Your task to perform on an android device: turn off wifi Image 0: 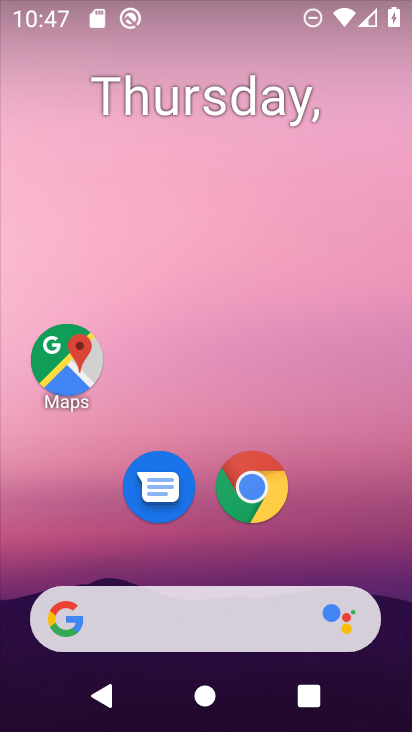
Step 0: drag from (334, 519) to (172, 198)
Your task to perform on an android device: turn off wifi Image 1: 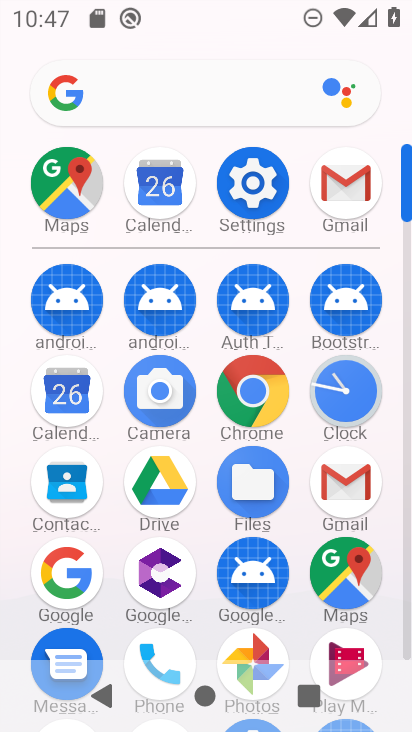
Step 1: click (242, 189)
Your task to perform on an android device: turn off wifi Image 2: 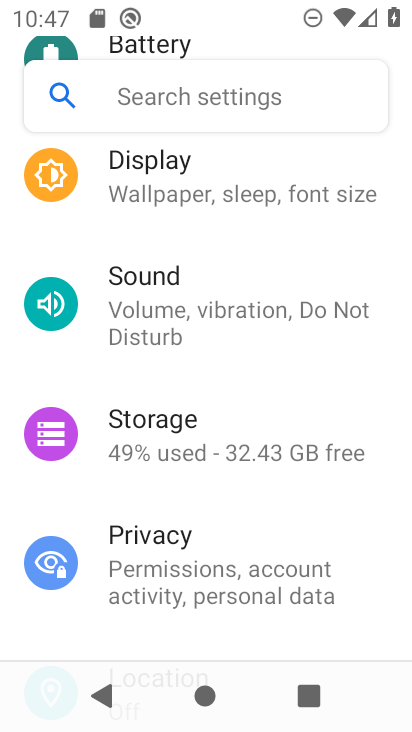
Step 2: drag from (216, 193) to (257, 613)
Your task to perform on an android device: turn off wifi Image 3: 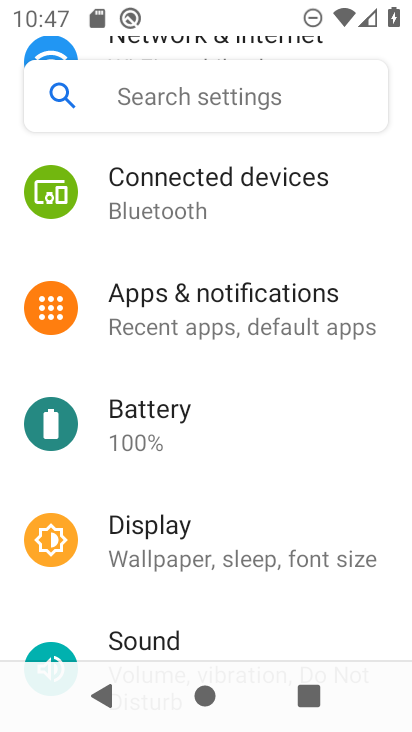
Step 3: drag from (251, 253) to (280, 549)
Your task to perform on an android device: turn off wifi Image 4: 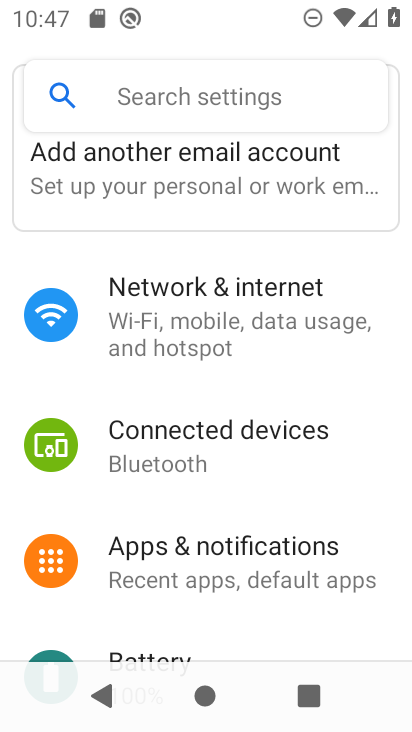
Step 4: click (157, 333)
Your task to perform on an android device: turn off wifi Image 5: 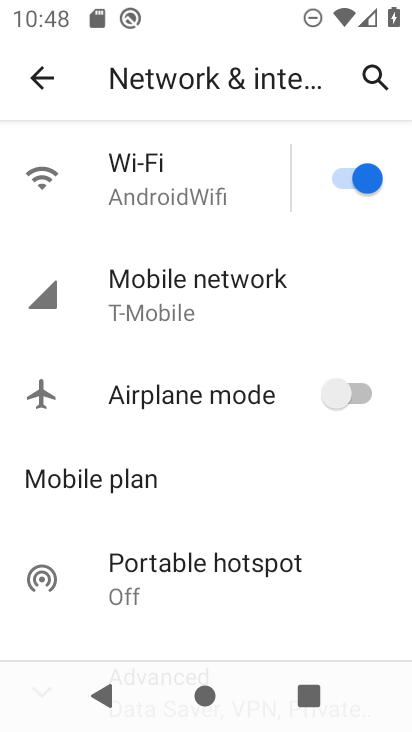
Step 5: click (360, 184)
Your task to perform on an android device: turn off wifi Image 6: 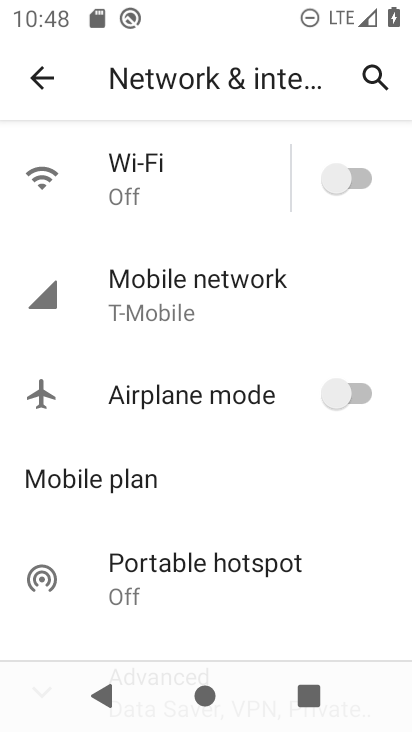
Step 6: task complete